Your task to perform on an android device: change the clock style Image 0: 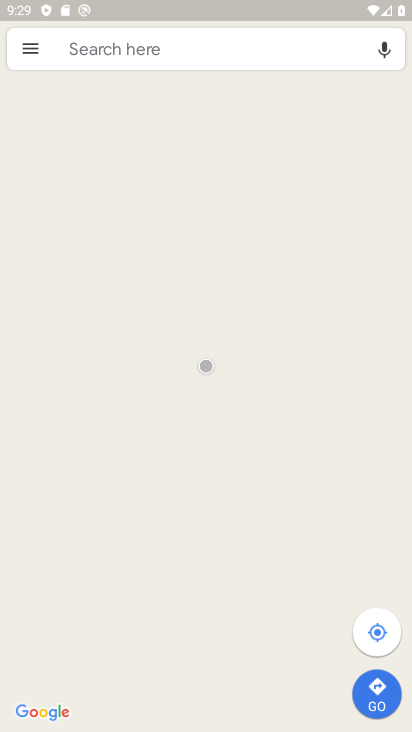
Step 0: press home button
Your task to perform on an android device: change the clock style Image 1: 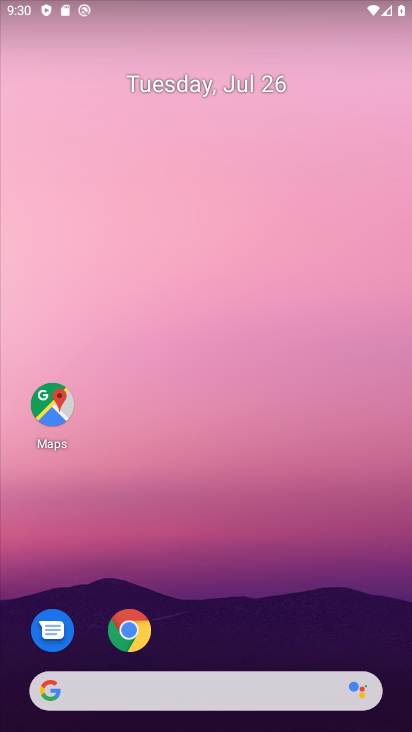
Step 1: drag from (382, 652) to (373, 188)
Your task to perform on an android device: change the clock style Image 2: 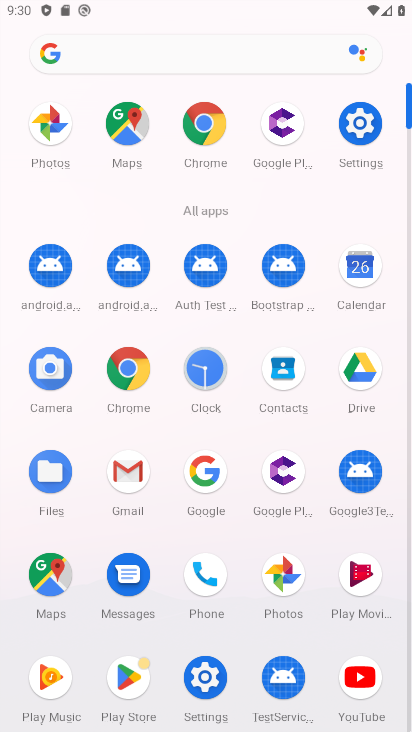
Step 2: click (205, 368)
Your task to perform on an android device: change the clock style Image 3: 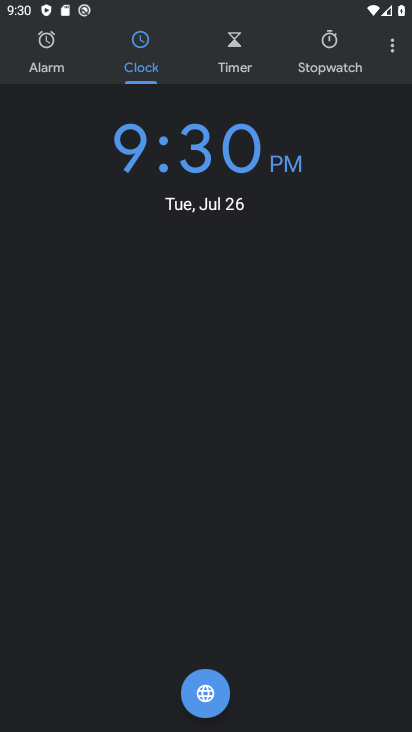
Step 3: click (392, 48)
Your task to perform on an android device: change the clock style Image 4: 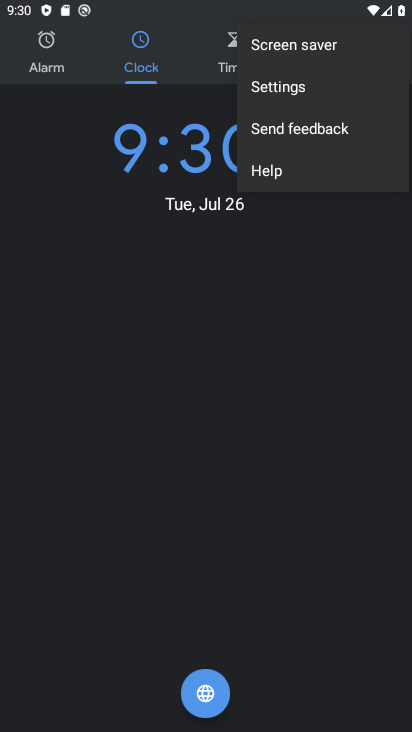
Step 4: click (281, 86)
Your task to perform on an android device: change the clock style Image 5: 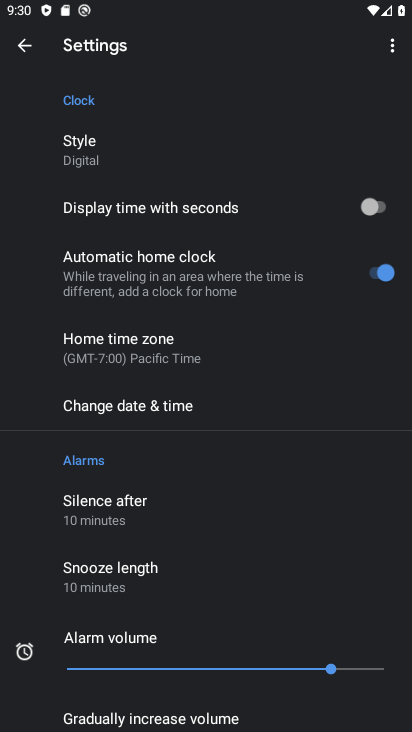
Step 5: click (72, 150)
Your task to perform on an android device: change the clock style Image 6: 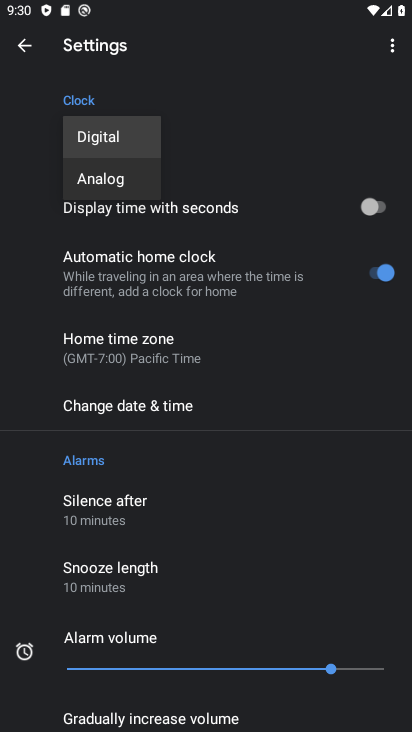
Step 6: click (101, 187)
Your task to perform on an android device: change the clock style Image 7: 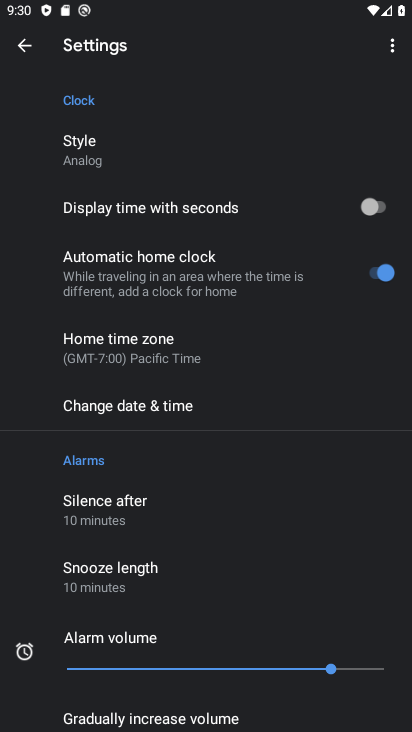
Step 7: task complete